Your task to perform on an android device: Turn off the flashlight Image 0: 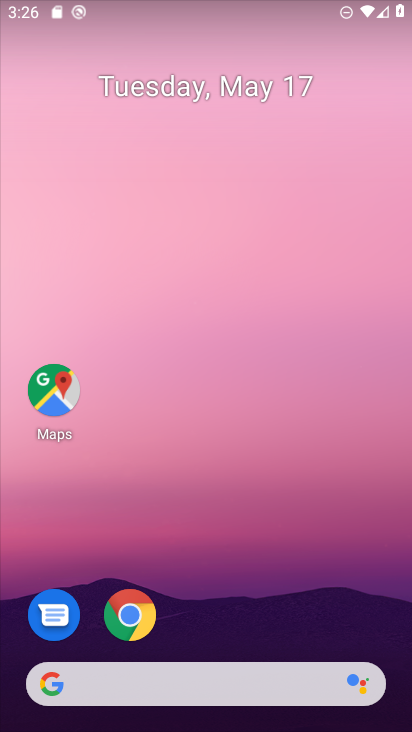
Step 0: drag from (242, 727) to (239, 104)
Your task to perform on an android device: Turn off the flashlight Image 1: 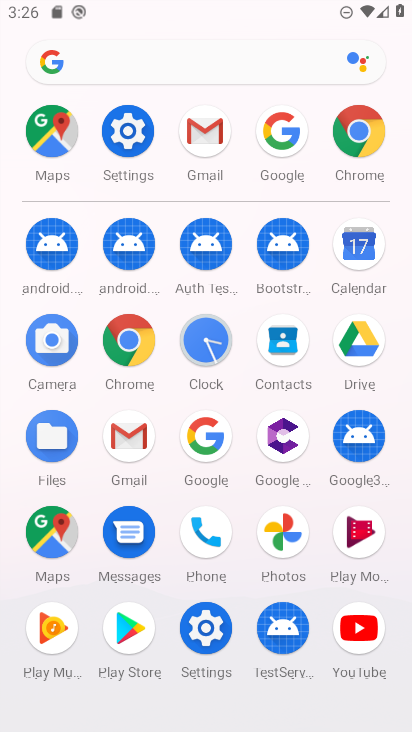
Step 1: click (122, 150)
Your task to perform on an android device: Turn off the flashlight Image 2: 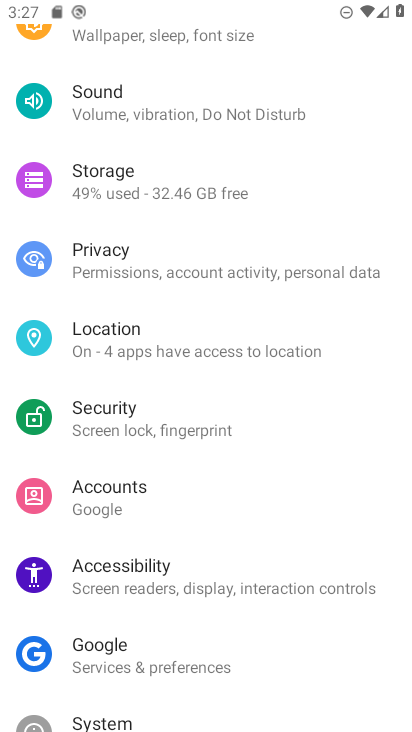
Step 2: task complete